Your task to perform on an android device: toggle airplane mode Image 0: 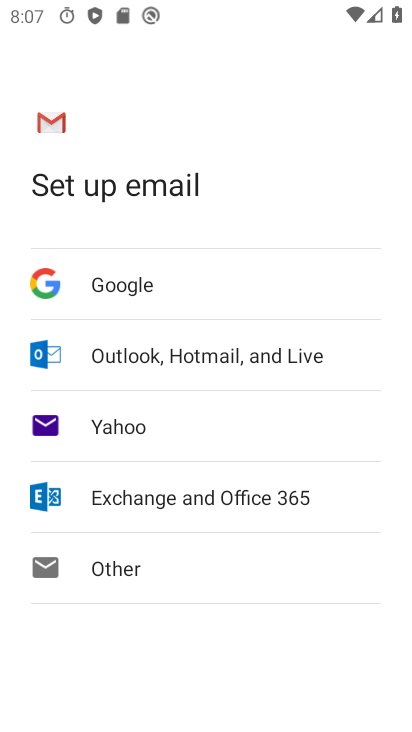
Step 0: press home button
Your task to perform on an android device: toggle airplane mode Image 1: 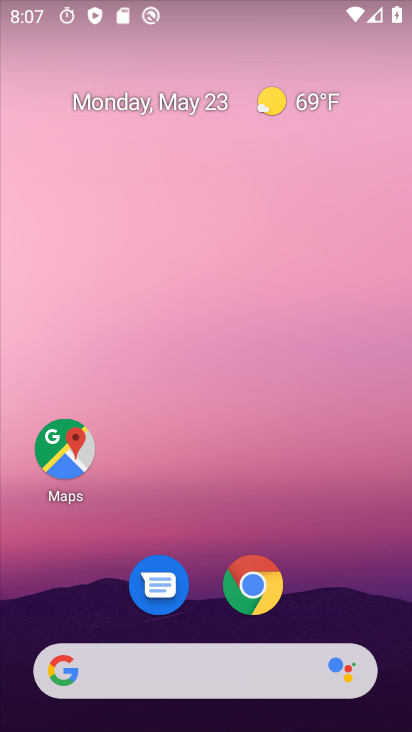
Step 1: drag from (198, 485) to (265, 23)
Your task to perform on an android device: toggle airplane mode Image 2: 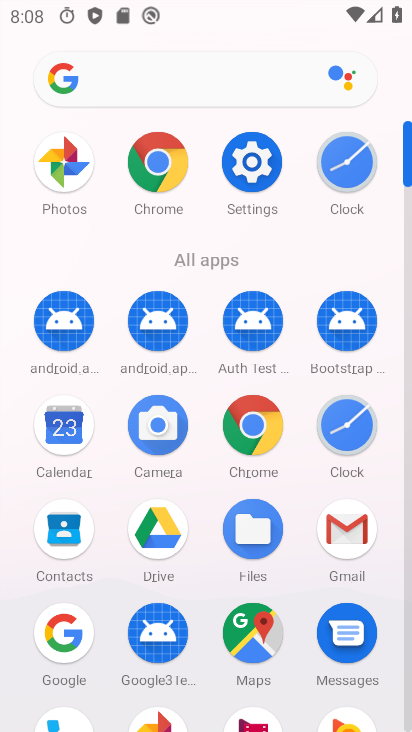
Step 2: click (246, 159)
Your task to perform on an android device: toggle airplane mode Image 3: 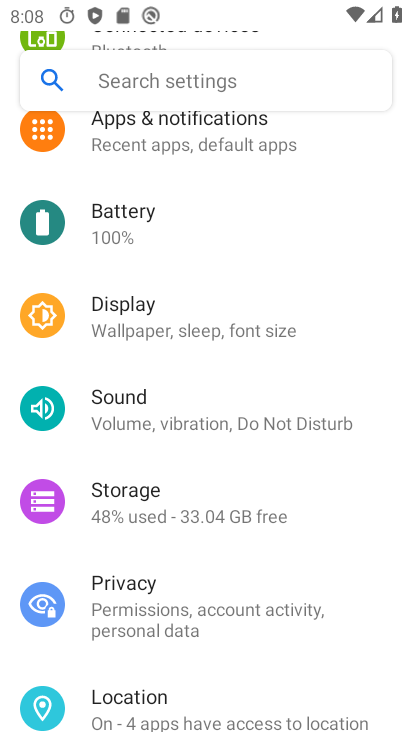
Step 3: drag from (237, 232) to (190, 615)
Your task to perform on an android device: toggle airplane mode Image 4: 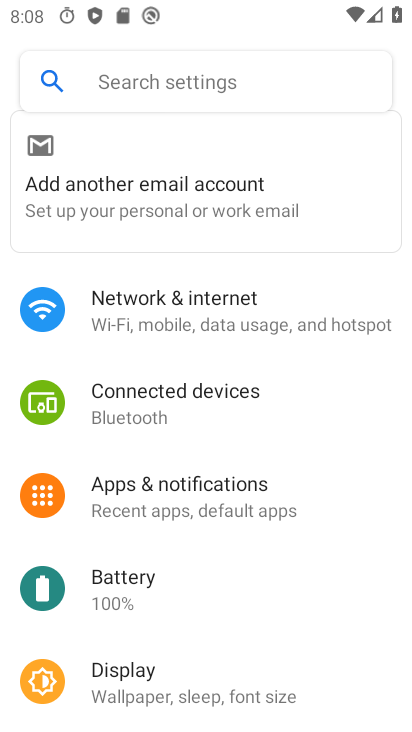
Step 4: click (218, 314)
Your task to perform on an android device: toggle airplane mode Image 5: 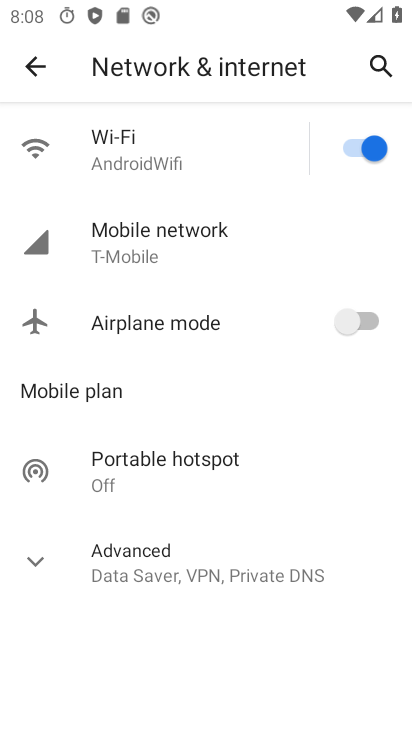
Step 5: click (353, 314)
Your task to perform on an android device: toggle airplane mode Image 6: 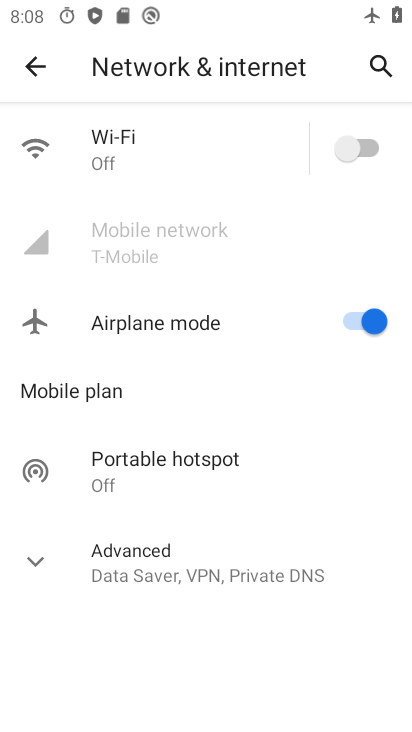
Step 6: task complete